Your task to perform on an android device: Search for a new lawnmower on home depot Image 0: 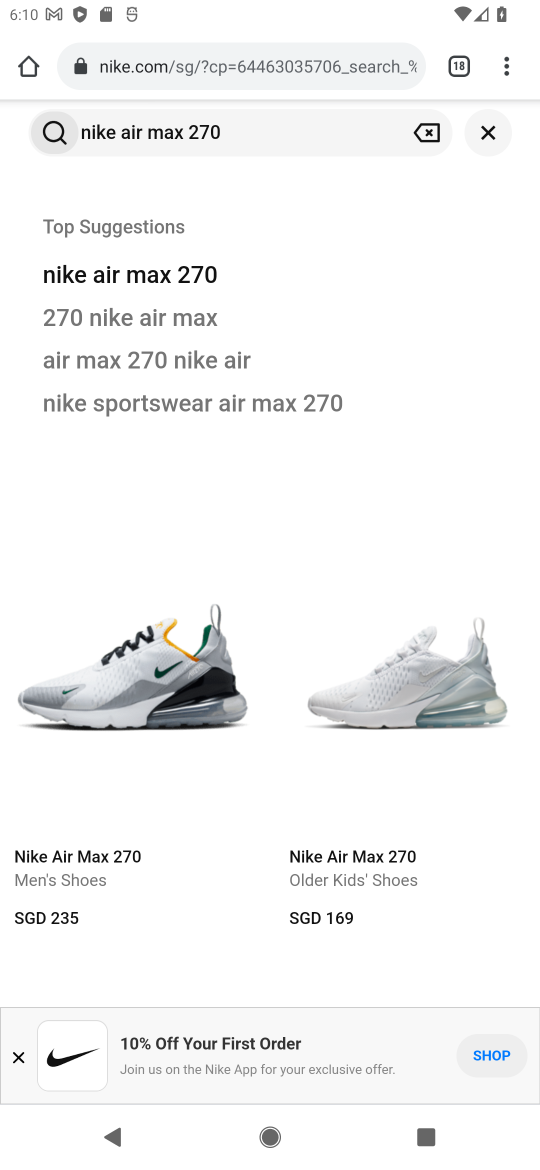
Step 0: press home button
Your task to perform on an android device: Search for a new lawnmower on home depot Image 1: 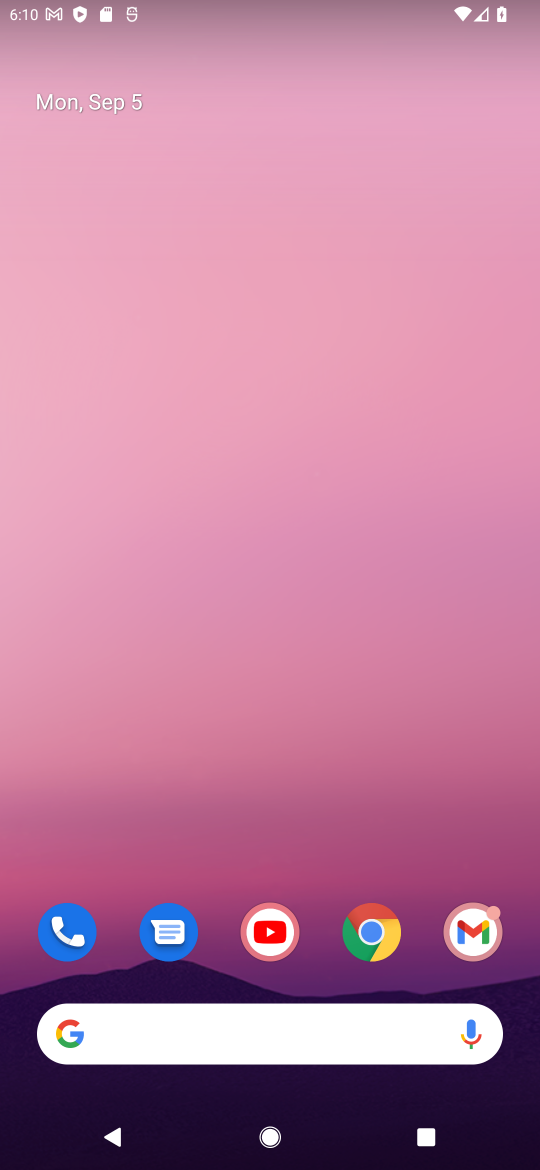
Step 1: click (366, 936)
Your task to perform on an android device: Search for a new lawnmower on home depot Image 2: 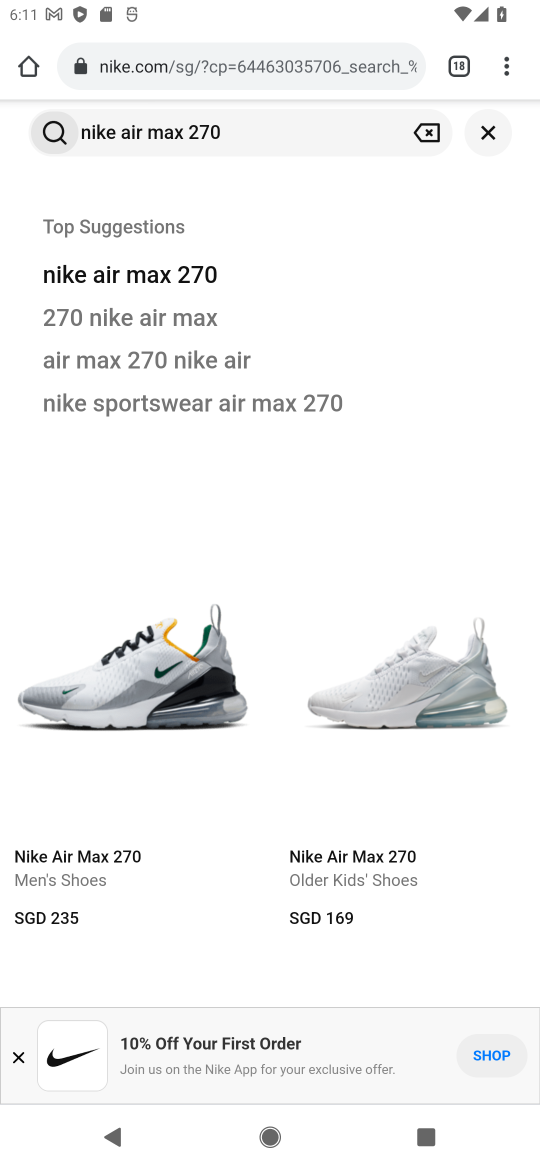
Step 2: click (508, 70)
Your task to perform on an android device: Search for a new lawnmower on home depot Image 3: 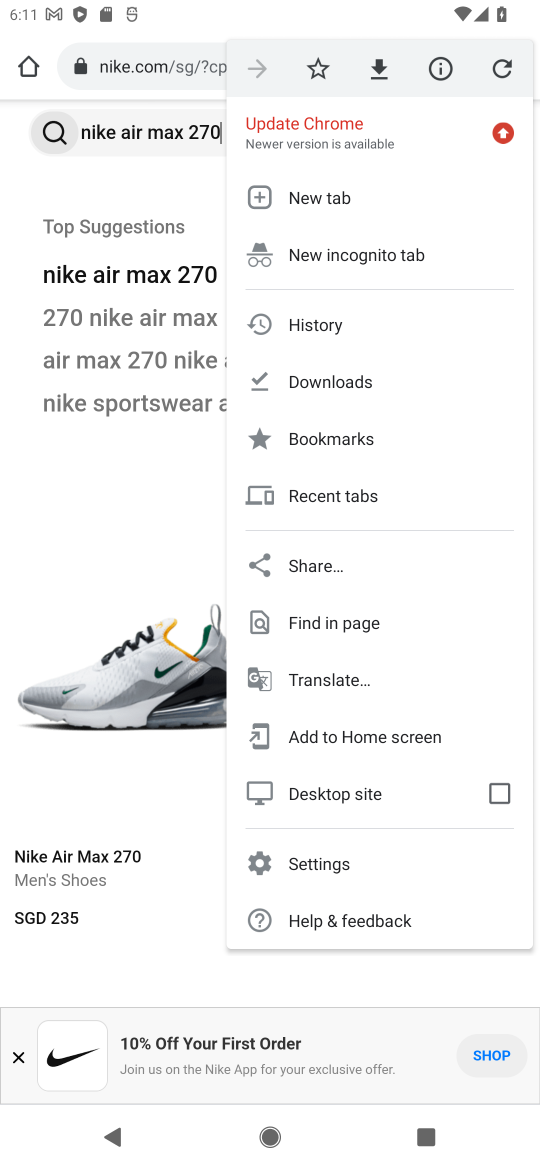
Step 3: click (339, 193)
Your task to perform on an android device: Search for a new lawnmower on home depot Image 4: 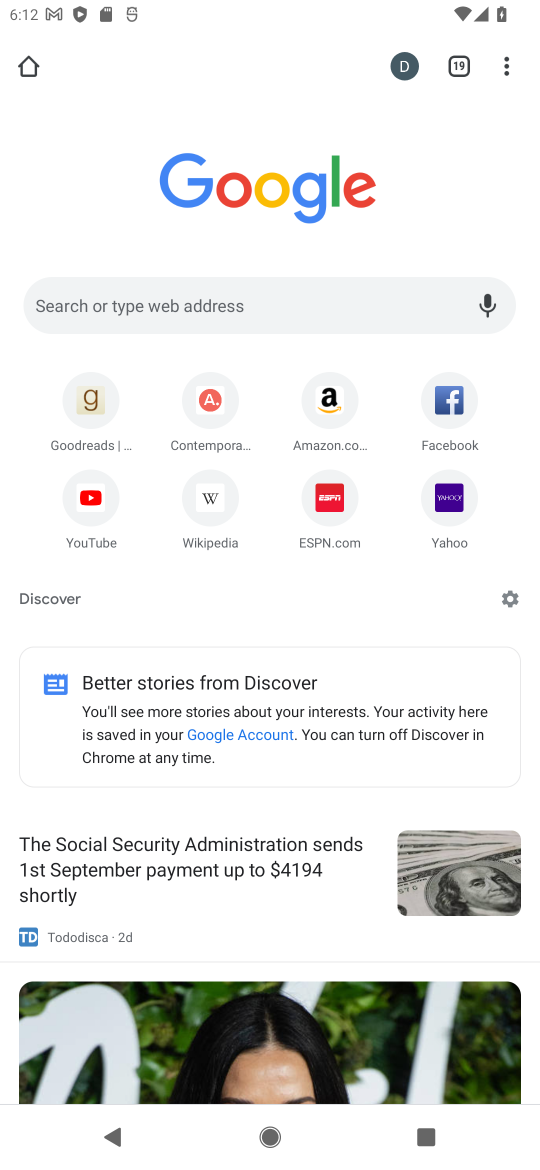
Step 4: click (212, 314)
Your task to perform on an android device: Search for a new lawnmower on home depot Image 5: 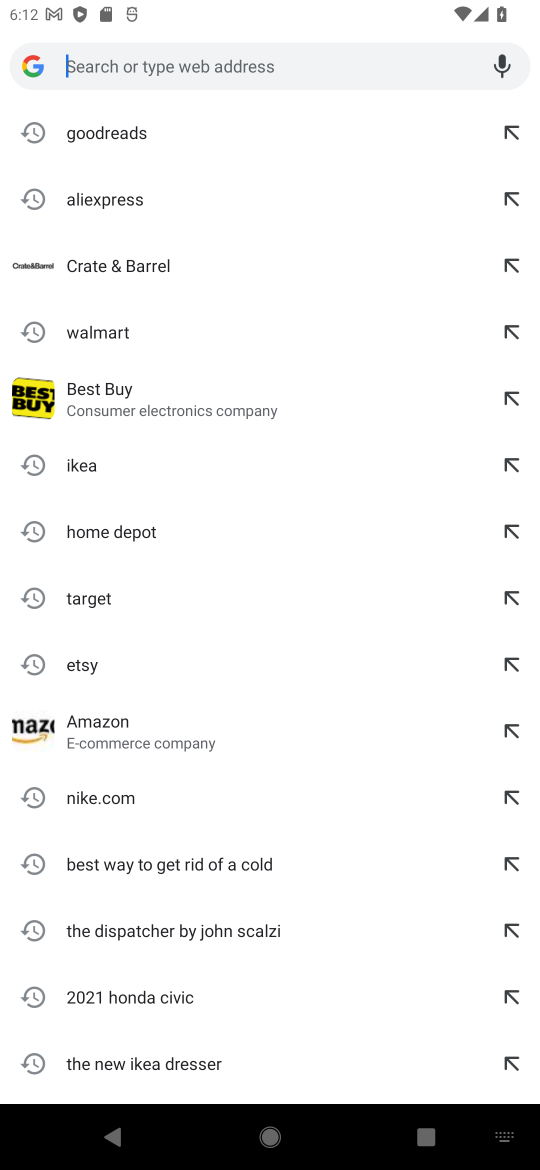
Step 5: type "home depot"
Your task to perform on an android device: Search for a new lawnmower on home depot Image 6: 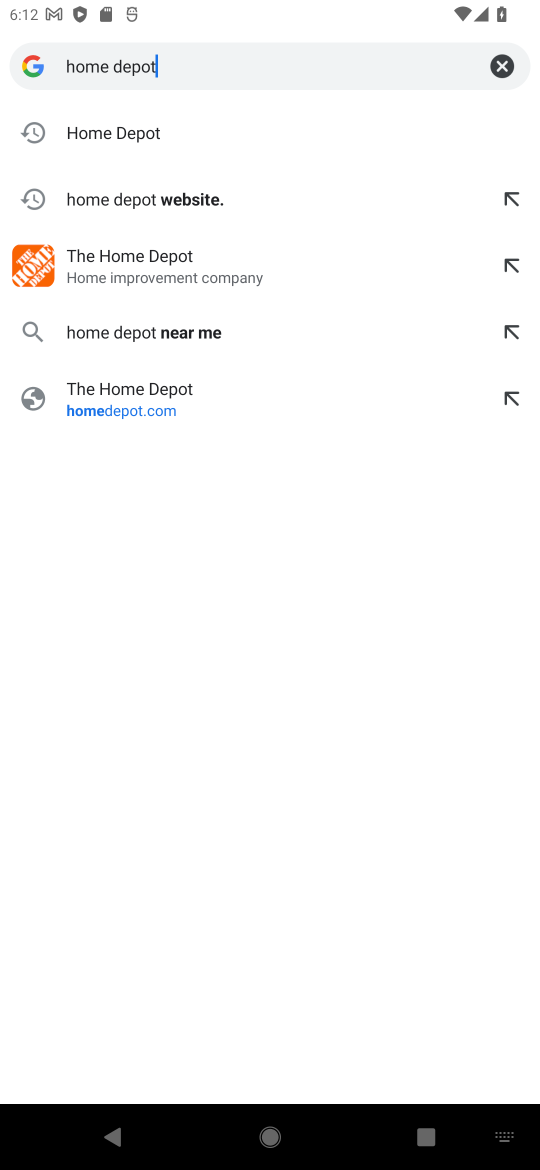
Step 6: click (142, 255)
Your task to perform on an android device: Search for a new lawnmower on home depot Image 7: 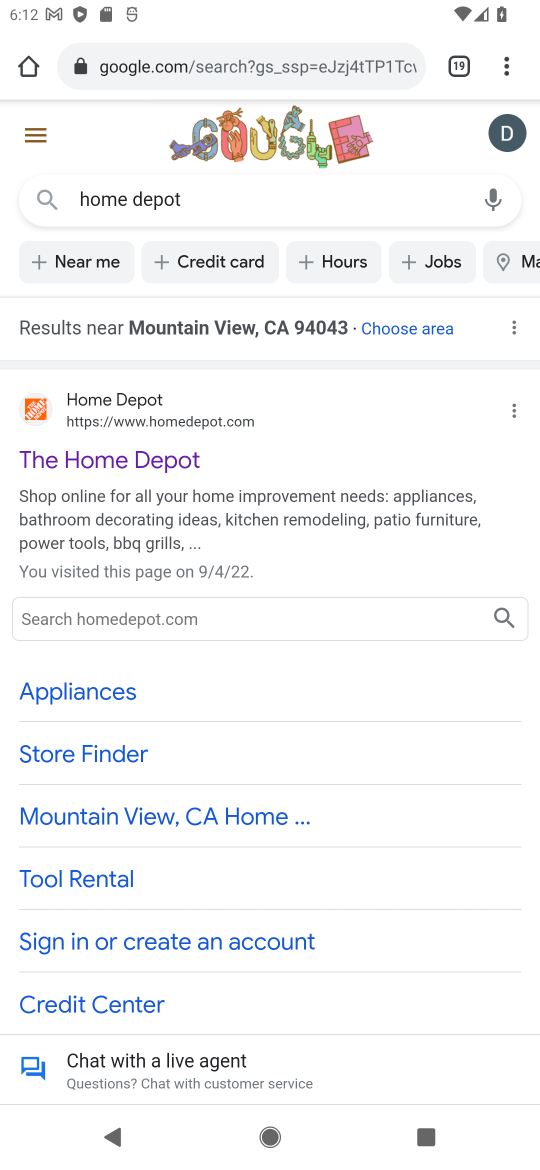
Step 7: click (120, 463)
Your task to perform on an android device: Search for a new lawnmower on home depot Image 8: 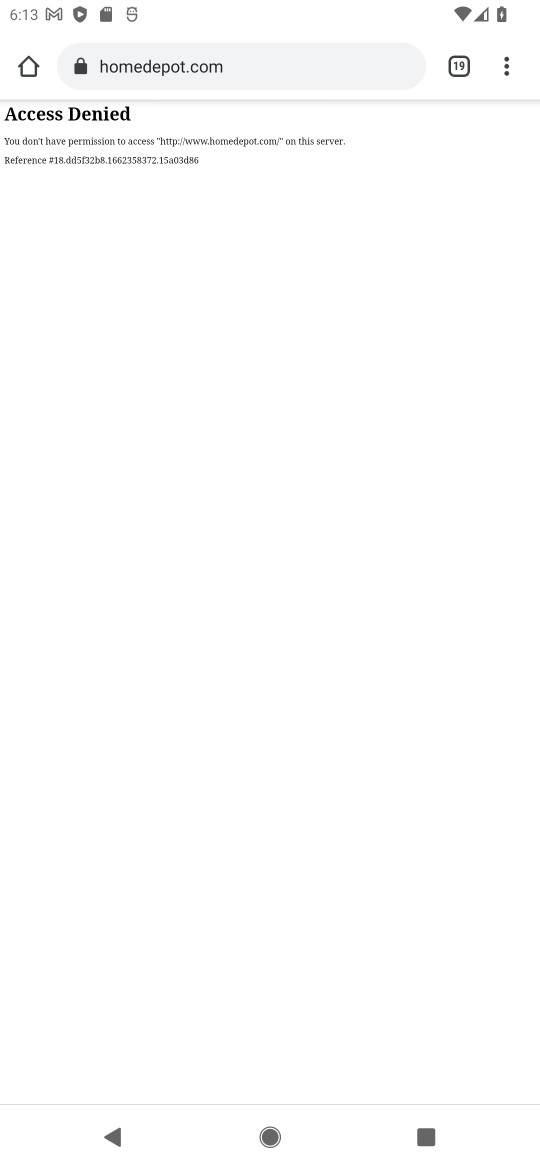
Step 8: task complete